Your task to perform on an android device: visit the assistant section in the google photos Image 0: 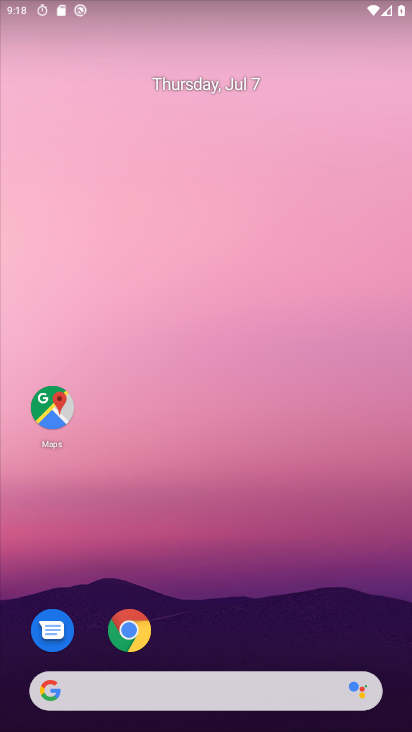
Step 0: drag from (123, 501) to (268, 148)
Your task to perform on an android device: visit the assistant section in the google photos Image 1: 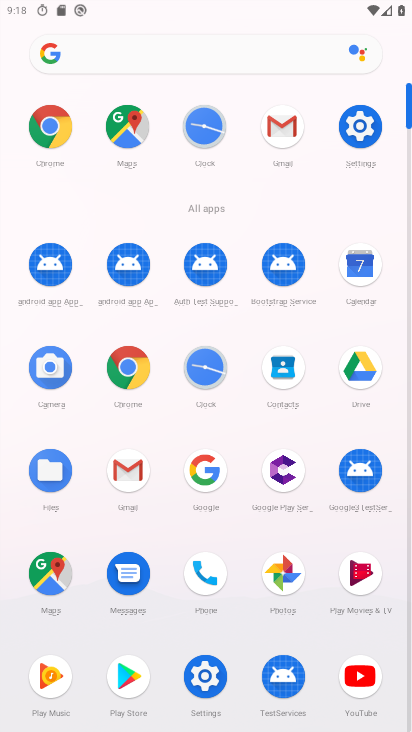
Step 1: click (286, 576)
Your task to perform on an android device: visit the assistant section in the google photos Image 2: 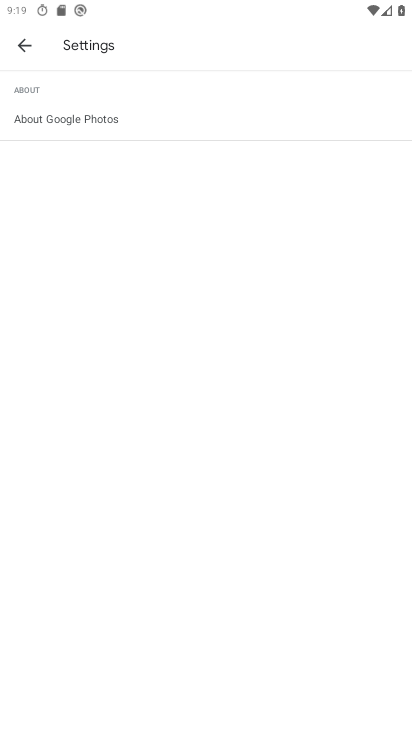
Step 2: click (28, 52)
Your task to perform on an android device: visit the assistant section in the google photos Image 3: 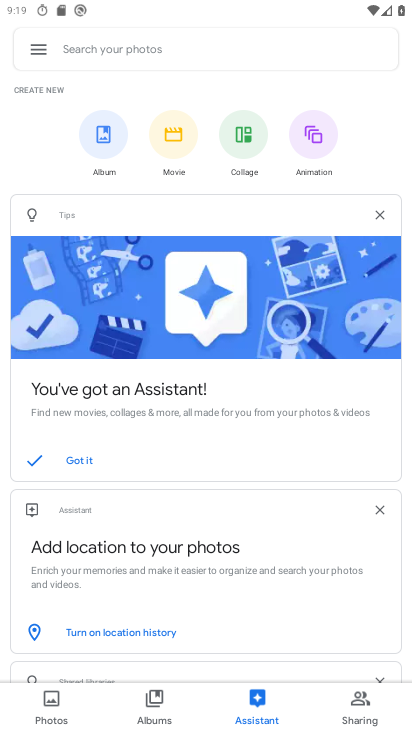
Step 3: click (253, 712)
Your task to perform on an android device: visit the assistant section in the google photos Image 4: 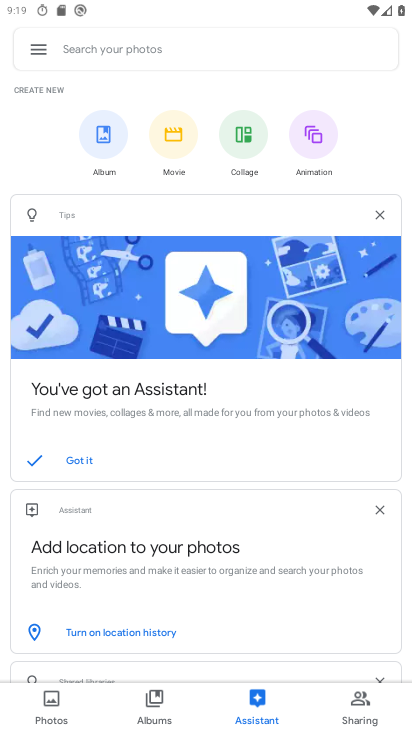
Step 4: task complete